Your task to perform on an android device: turn off data saver in the chrome app Image 0: 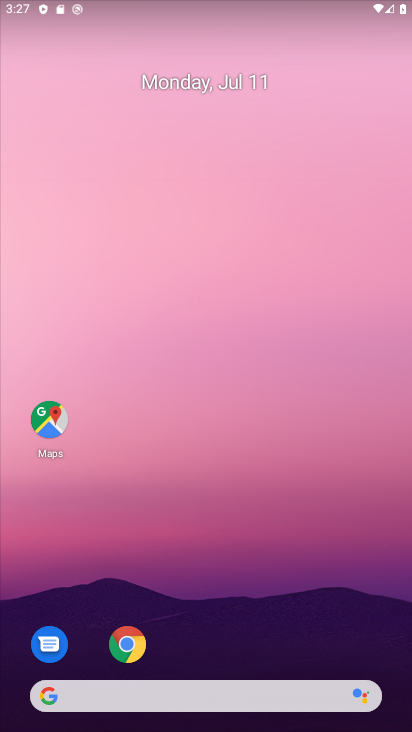
Step 0: drag from (205, 590) to (258, 32)
Your task to perform on an android device: turn off data saver in the chrome app Image 1: 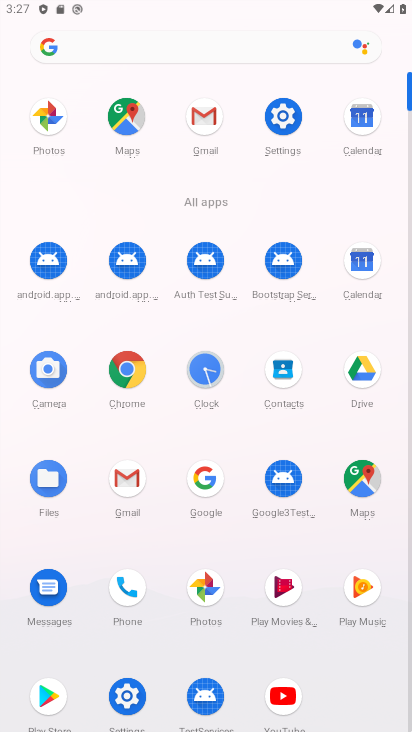
Step 1: click (112, 382)
Your task to perform on an android device: turn off data saver in the chrome app Image 2: 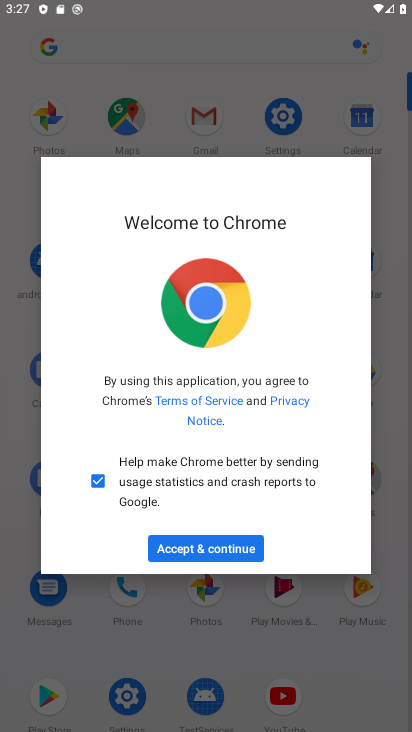
Step 2: click (218, 554)
Your task to perform on an android device: turn off data saver in the chrome app Image 3: 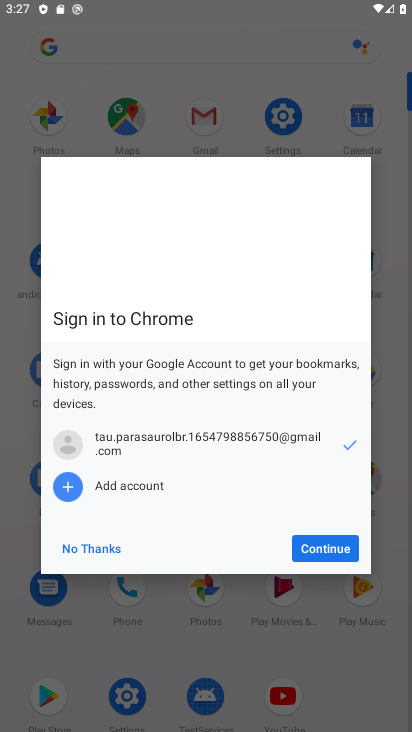
Step 3: click (345, 545)
Your task to perform on an android device: turn off data saver in the chrome app Image 4: 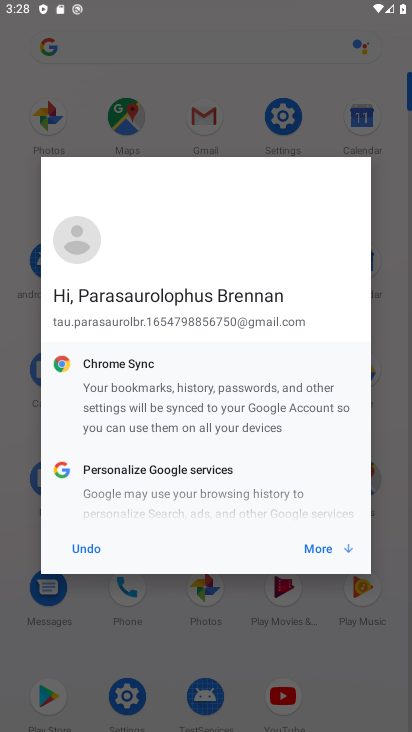
Step 4: click (333, 544)
Your task to perform on an android device: turn off data saver in the chrome app Image 5: 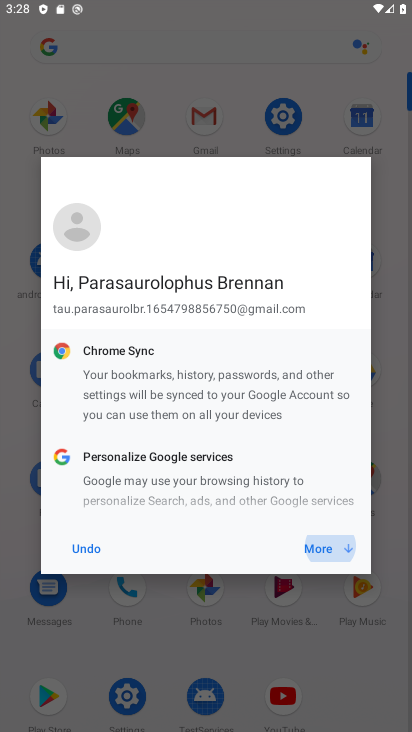
Step 5: click (333, 554)
Your task to perform on an android device: turn off data saver in the chrome app Image 6: 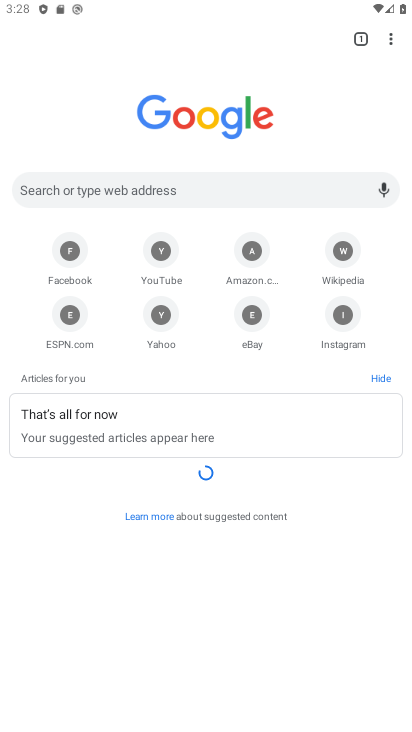
Step 6: drag from (397, 43) to (316, 312)
Your task to perform on an android device: turn off data saver in the chrome app Image 7: 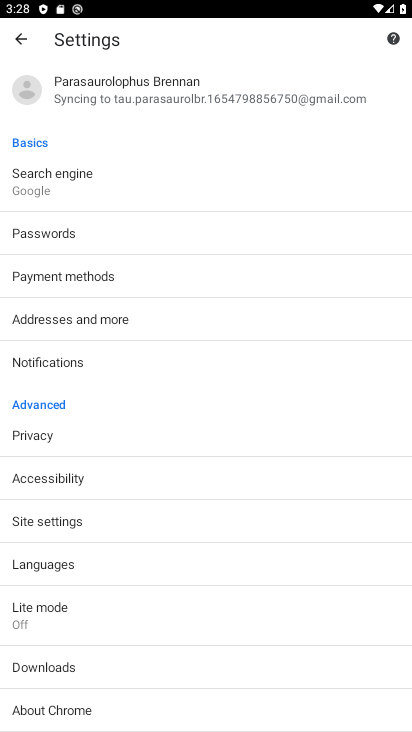
Step 7: click (94, 612)
Your task to perform on an android device: turn off data saver in the chrome app Image 8: 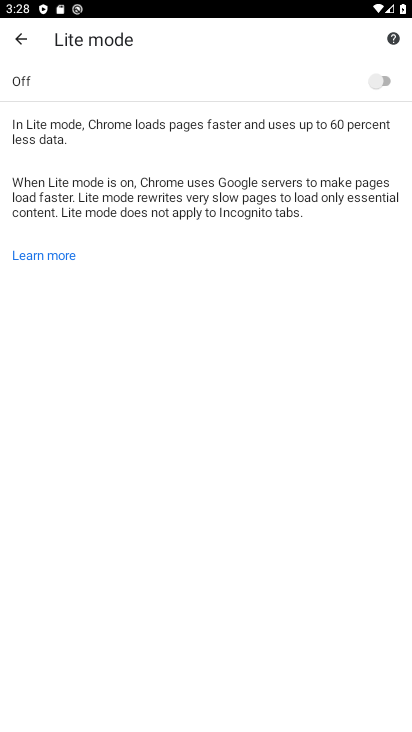
Step 8: task complete